Your task to perform on an android device: Open Google Chrome and open the bookmarks view Image 0: 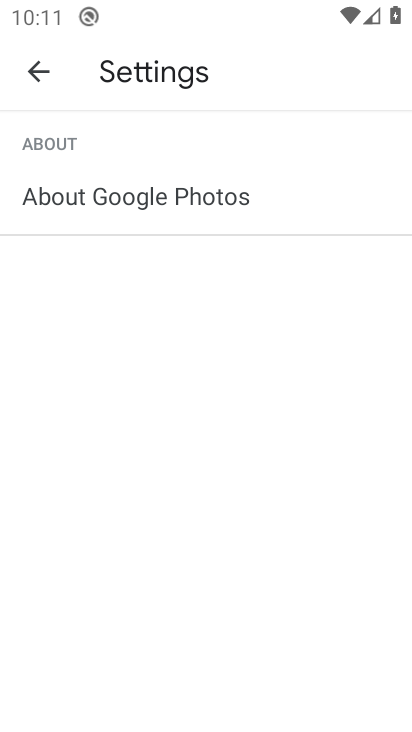
Step 0: press back button
Your task to perform on an android device: Open Google Chrome and open the bookmarks view Image 1: 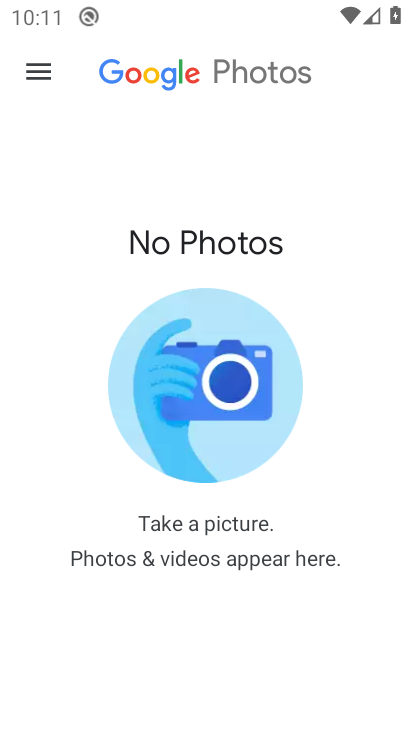
Step 1: press home button
Your task to perform on an android device: Open Google Chrome and open the bookmarks view Image 2: 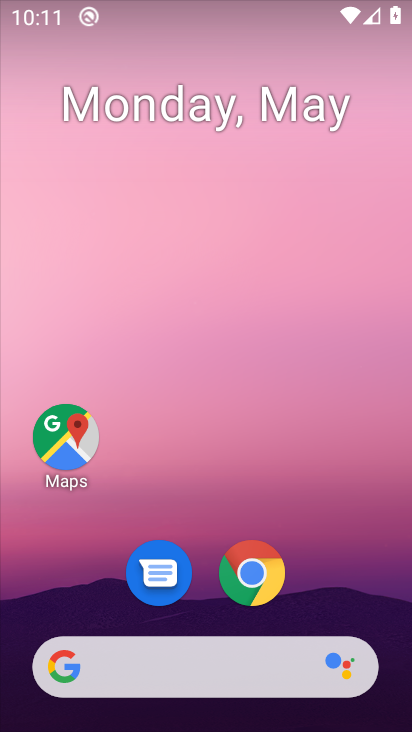
Step 2: click (254, 576)
Your task to perform on an android device: Open Google Chrome and open the bookmarks view Image 3: 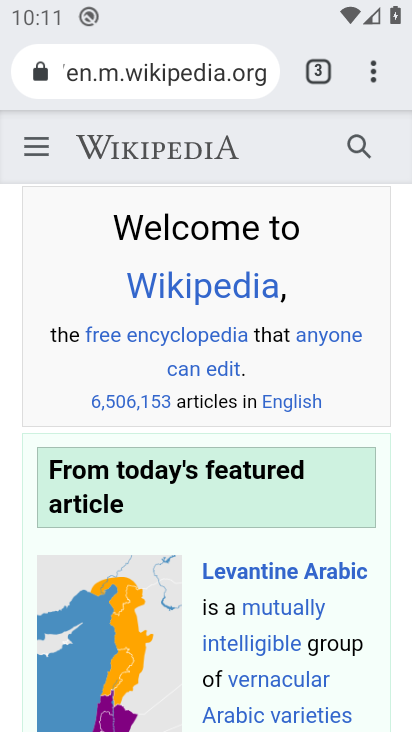
Step 3: task complete